Your task to perform on an android device: Go to Google maps Image 0: 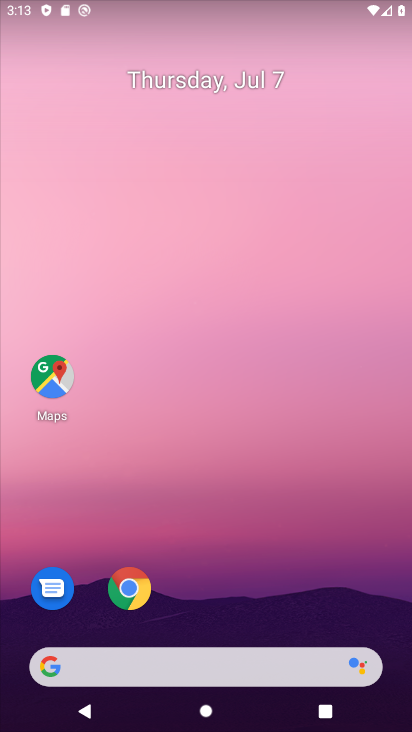
Step 0: drag from (230, 729) to (188, 181)
Your task to perform on an android device: Go to Google maps Image 1: 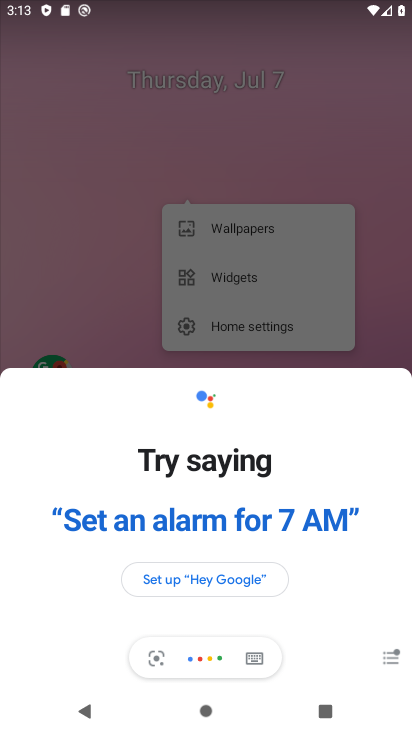
Step 1: click (109, 233)
Your task to perform on an android device: Go to Google maps Image 2: 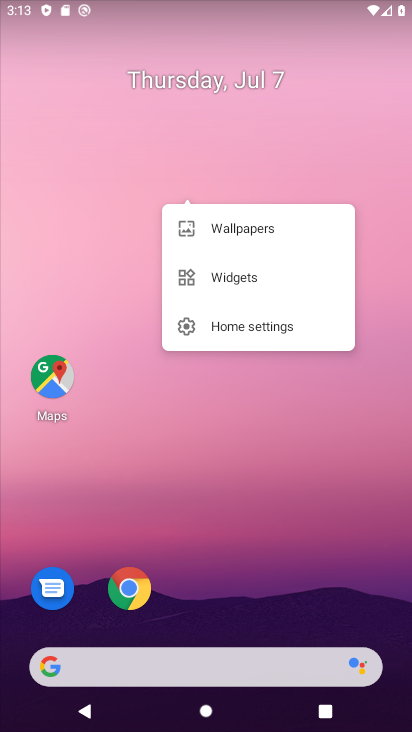
Step 2: click (59, 378)
Your task to perform on an android device: Go to Google maps Image 3: 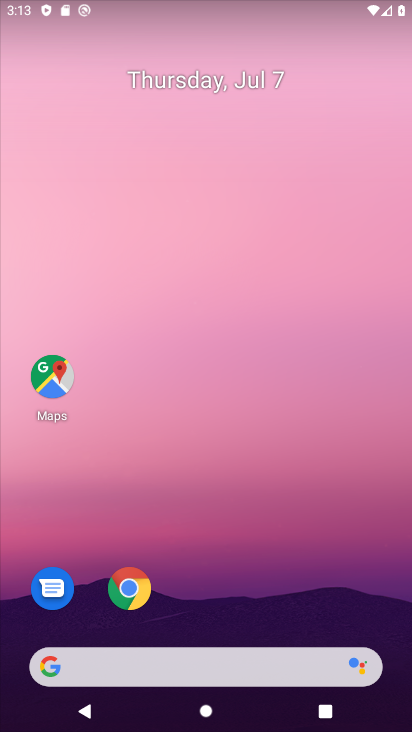
Step 3: click (58, 379)
Your task to perform on an android device: Go to Google maps Image 4: 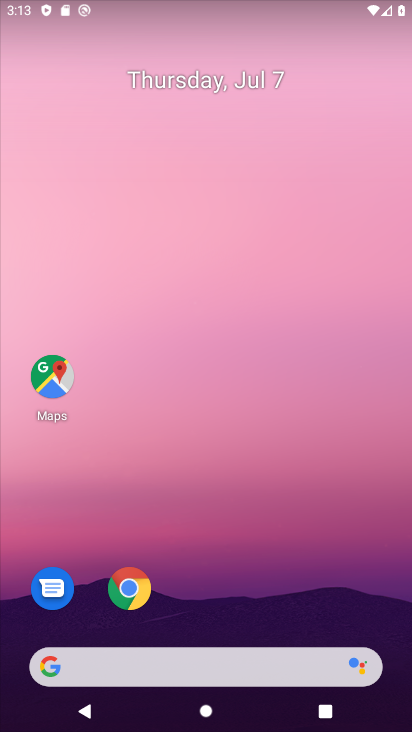
Step 4: click (58, 379)
Your task to perform on an android device: Go to Google maps Image 5: 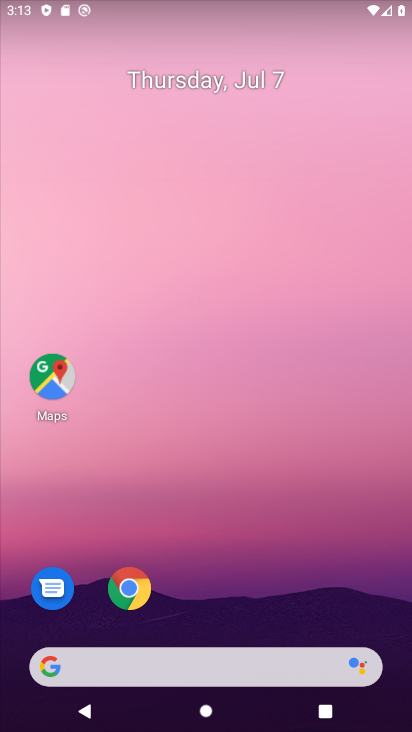
Step 5: click (58, 379)
Your task to perform on an android device: Go to Google maps Image 6: 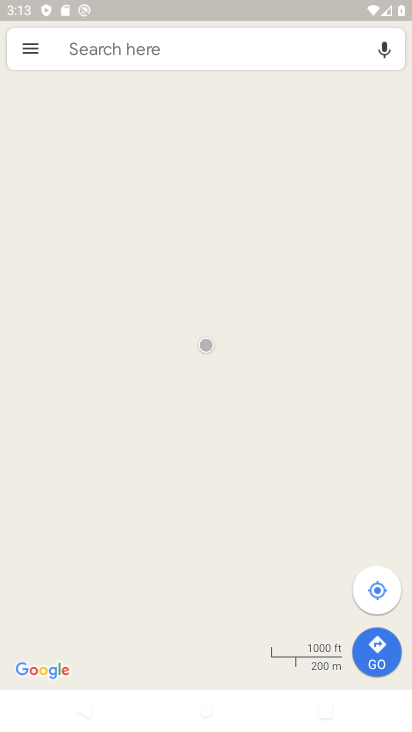
Step 6: task complete